Your task to perform on an android device: Turn on the flashlight Image 0: 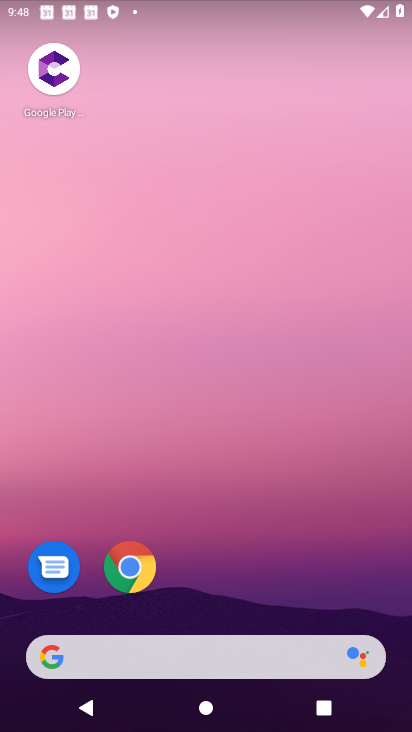
Step 0: drag from (335, 656) to (314, 70)
Your task to perform on an android device: Turn on the flashlight Image 1: 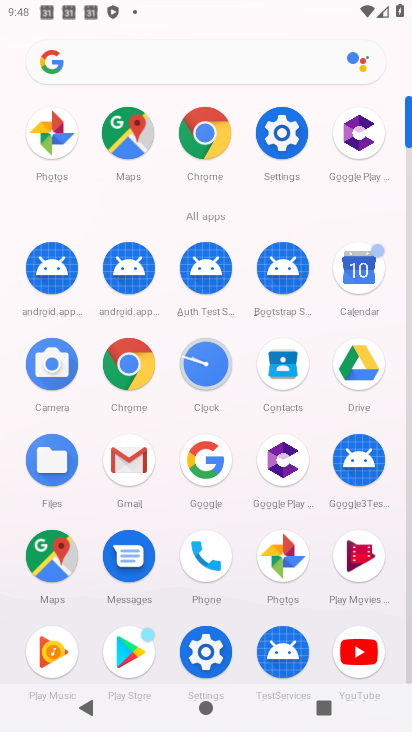
Step 1: task complete